Your task to perform on an android device: turn off picture-in-picture Image 0: 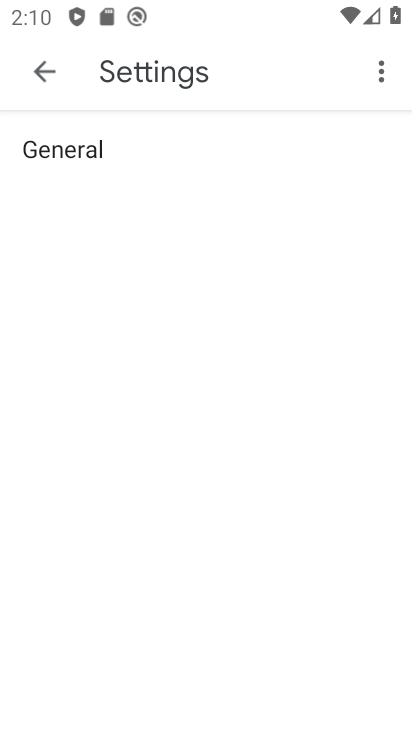
Step 0: click (35, 60)
Your task to perform on an android device: turn off picture-in-picture Image 1: 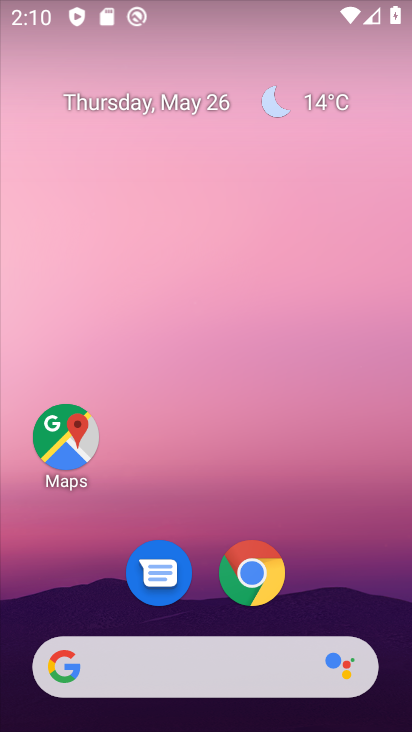
Step 1: drag from (339, 587) to (213, 17)
Your task to perform on an android device: turn off picture-in-picture Image 2: 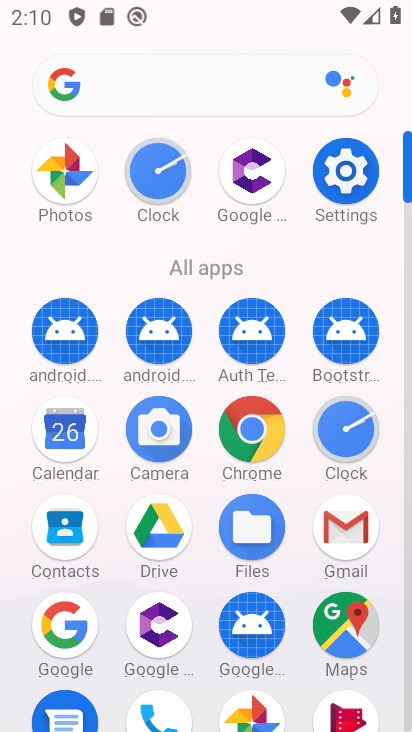
Step 2: drag from (8, 593) to (32, 225)
Your task to perform on an android device: turn off picture-in-picture Image 3: 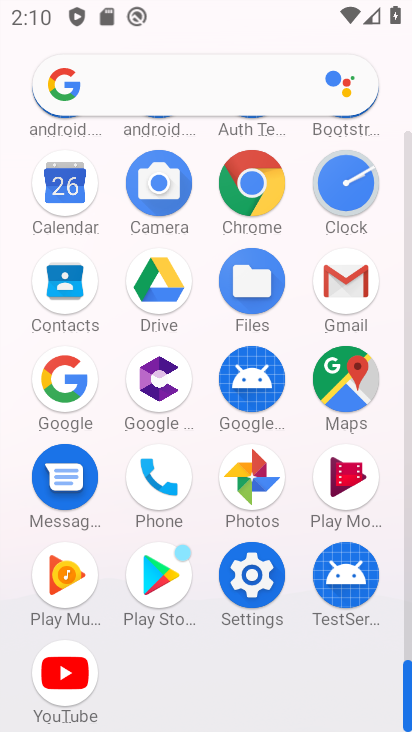
Step 3: click (252, 573)
Your task to perform on an android device: turn off picture-in-picture Image 4: 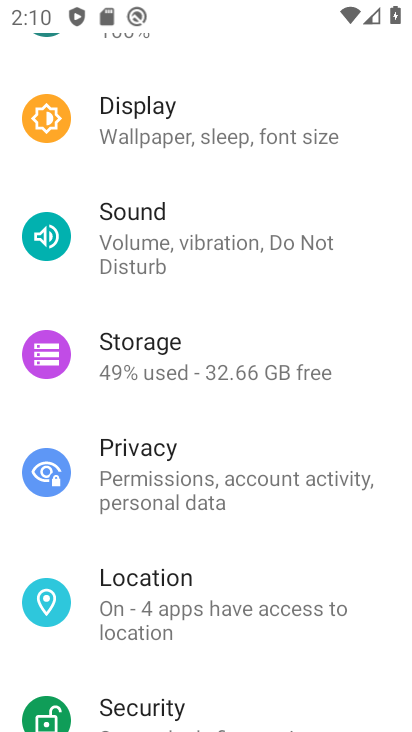
Step 4: drag from (268, 624) to (260, 109)
Your task to perform on an android device: turn off picture-in-picture Image 5: 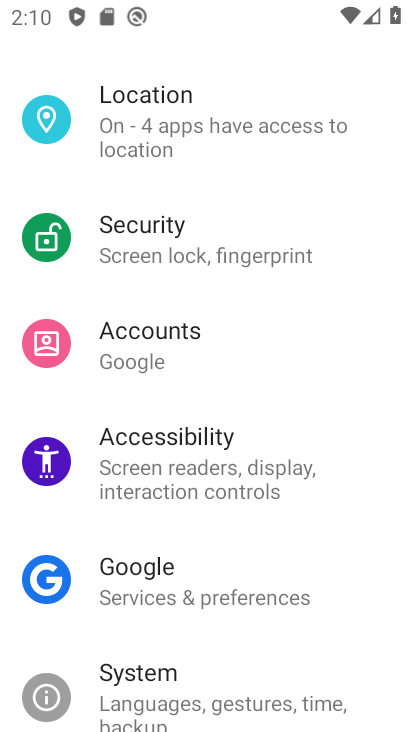
Step 5: drag from (258, 575) to (258, 111)
Your task to perform on an android device: turn off picture-in-picture Image 6: 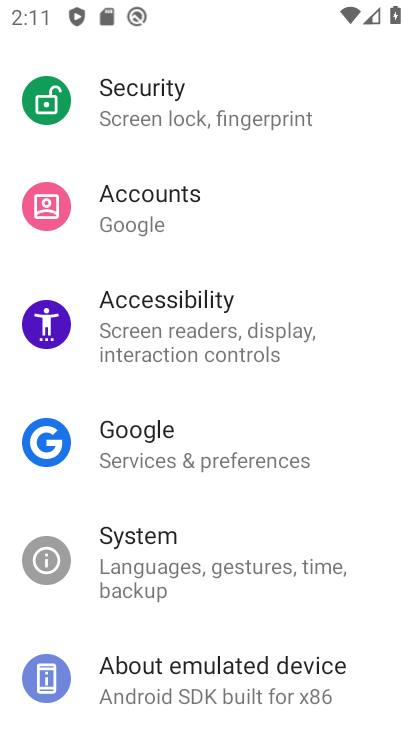
Step 6: drag from (210, 645) to (210, 230)
Your task to perform on an android device: turn off picture-in-picture Image 7: 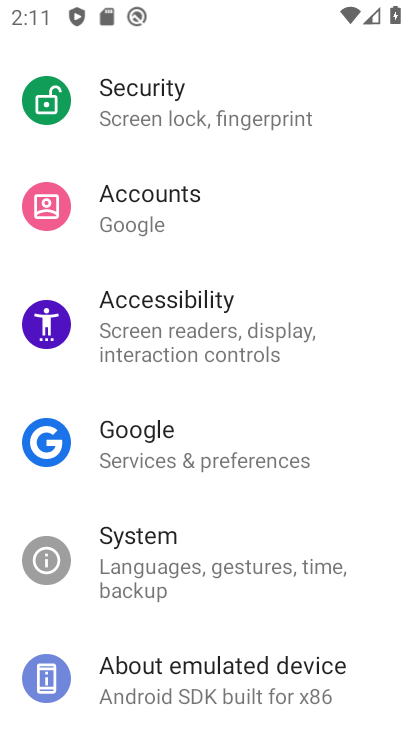
Step 7: click (186, 688)
Your task to perform on an android device: turn off picture-in-picture Image 8: 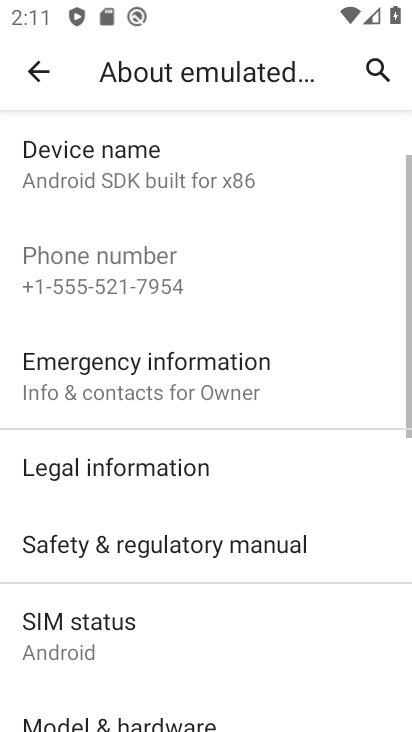
Step 8: drag from (269, 617) to (303, 144)
Your task to perform on an android device: turn off picture-in-picture Image 9: 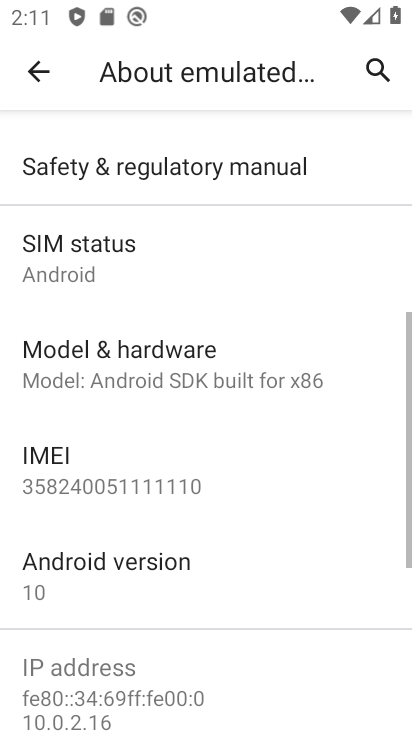
Step 9: drag from (234, 577) to (267, 122)
Your task to perform on an android device: turn off picture-in-picture Image 10: 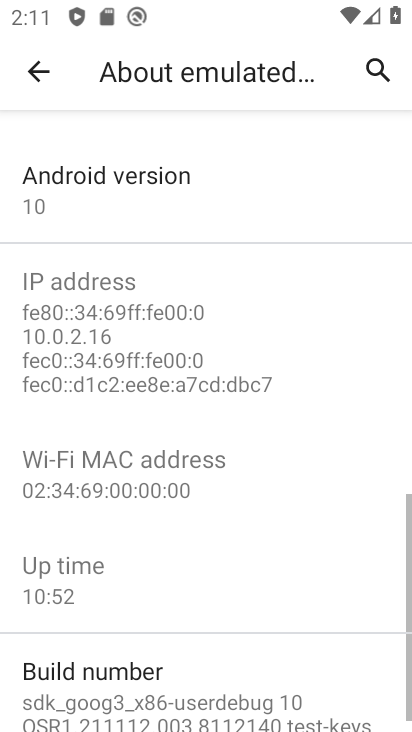
Step 10: click (50, 81)
Your task to perform on an android device: turn off picture-in-picture Image 11: 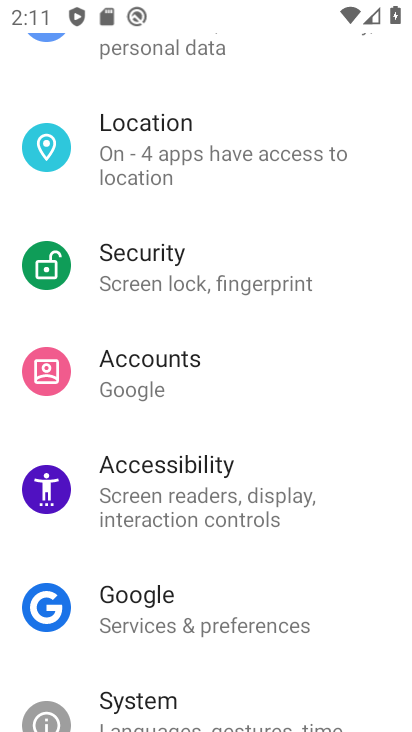
Step 11: drag from (266, 151) to (255, 597)
Your task to perform on an android device: turn off picture-in-picture Image 12: 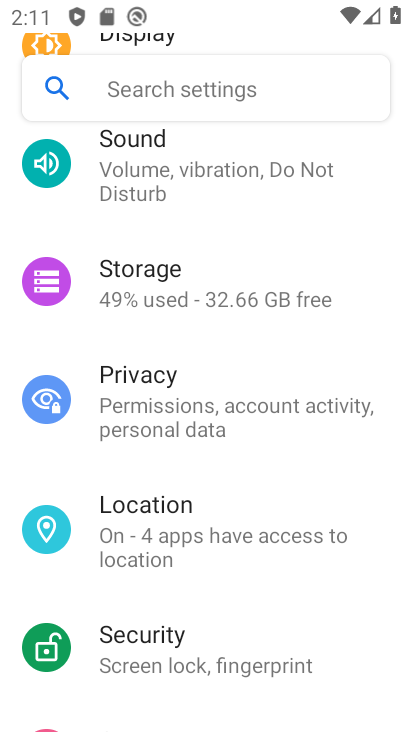
Step 12: drag from (263, 234) to (237, 685)
Your task to perform on an android device: turn off picture-in-picture Image 13: 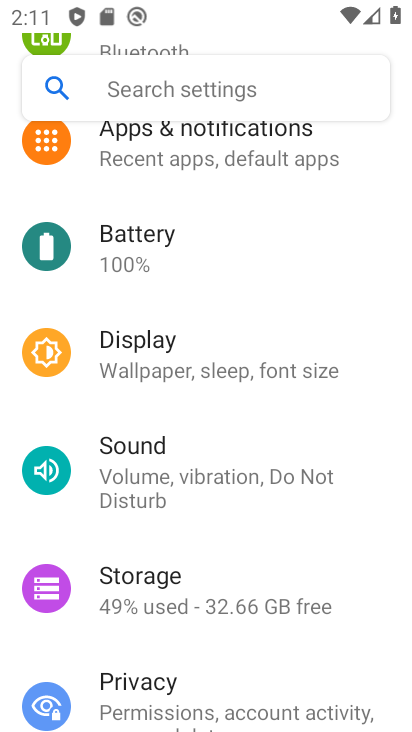
Step 13: drag from (233, 195) to (229, 430)
Your task to perform on an android device: turn off picture-in-picture Image 14: 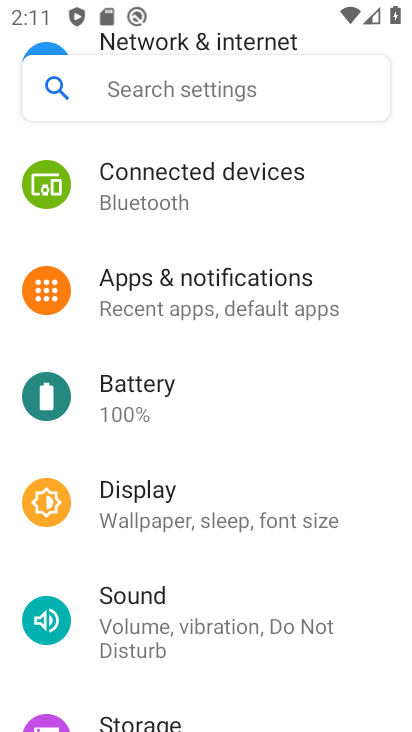
Step 14: click (213, 294)
Your task to perform on an android device: turn off picture-in-picture Image 15: 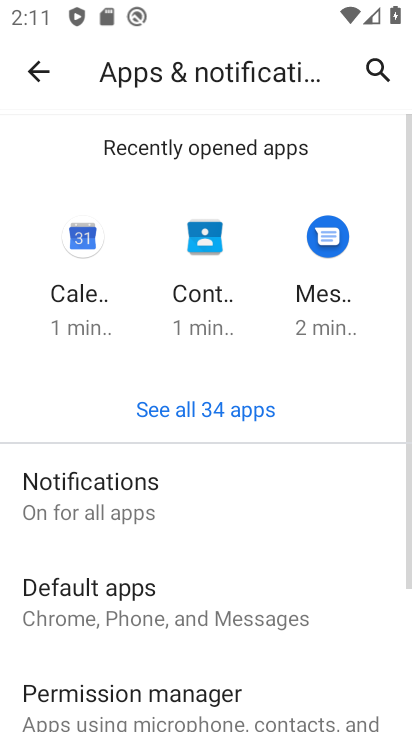
Step 15: drag from (296, 640) to (308, 141)
Your task to perform on an android device: turn off picture-in-picture Image 16: 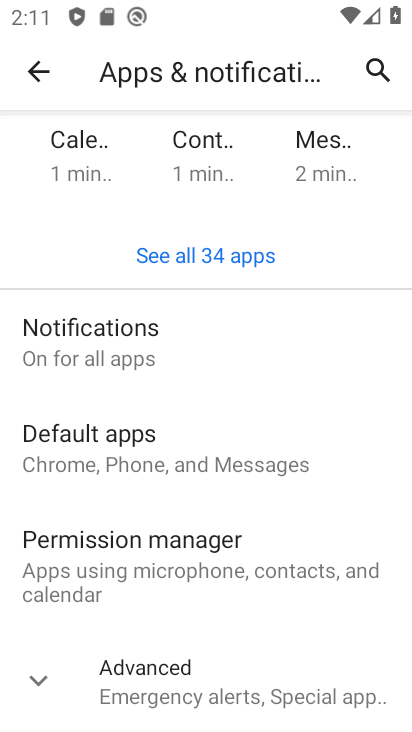
Step 16: click (157, 665)
Your task to perform on an android device: turn off picture-in-picture Image 17: 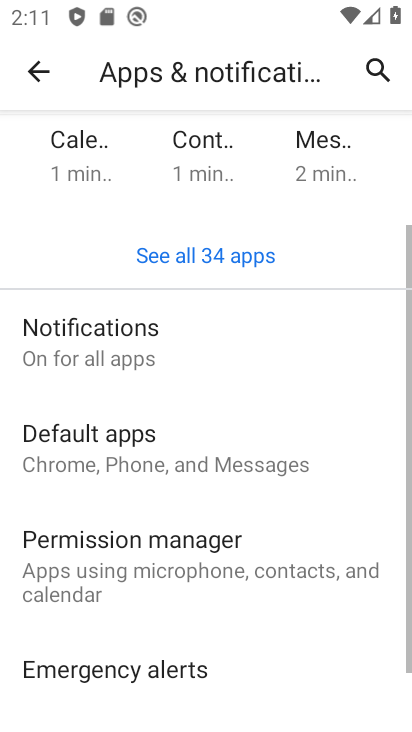
Step 17: drag from (305, 640) to (288, 175)
Your task to perform on an android device: turn off picture-in-picture Image 18: 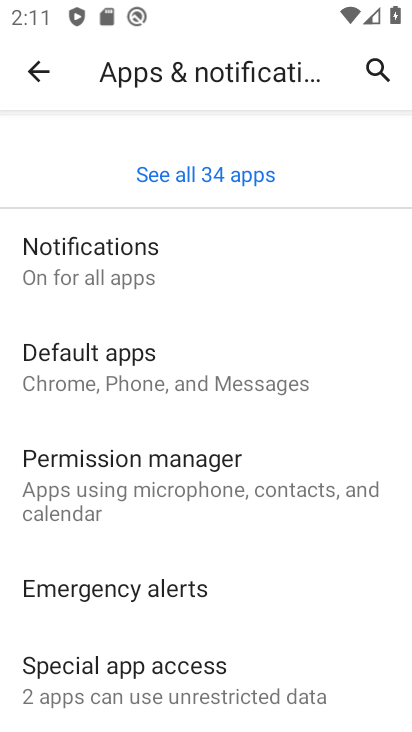
Step 18: click (156, 683)
Your task to perform on an android device: turn off picture-in-picture Image 19: 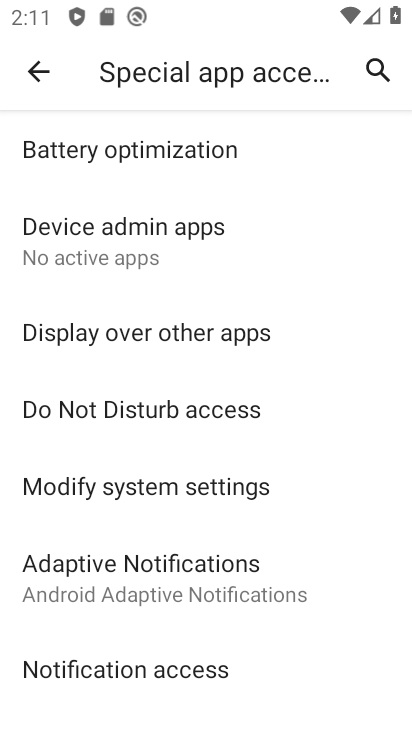
Step 19: drag from (241, 593) to (262, 197)
Your task to perform on an android device: turn off picture-in-picture Image 20: 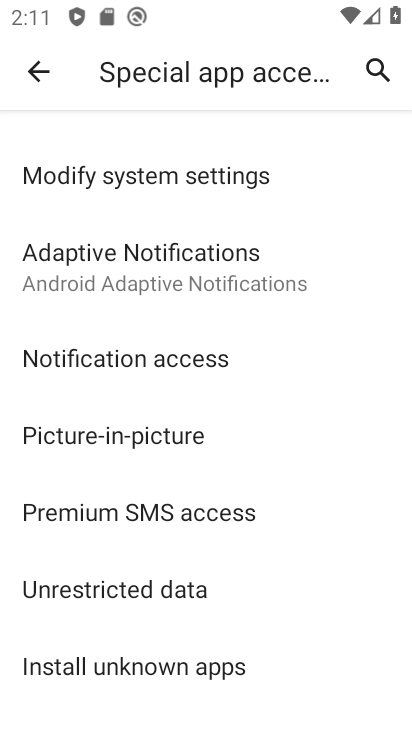
Step 20: click (172, 429)
Your task to perform on an android device: turn off picture-in-picture Image 21: 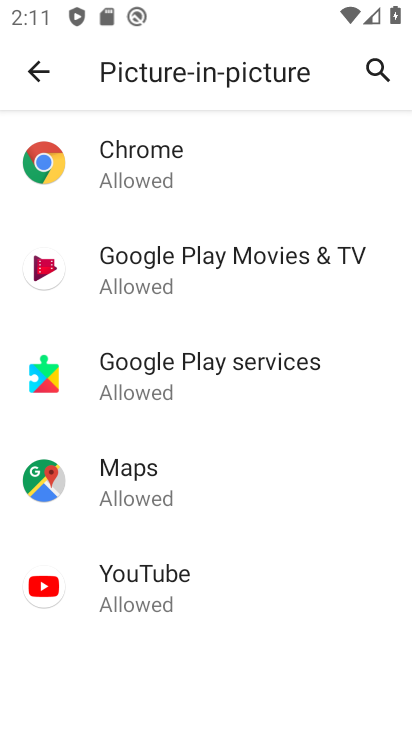
Step 21: click (214, 172)
Your task to perform on an android device: turn off picture-in-picture Image 22: 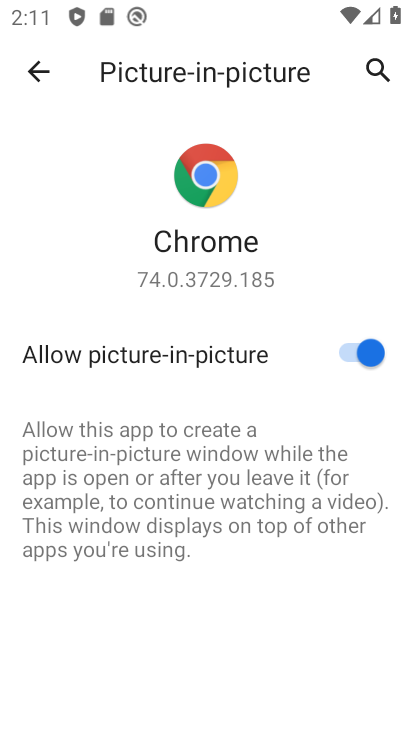
Step 22: click (354, 360)
Your task to perform on an android device: turn off picture-in-picture Image 23: 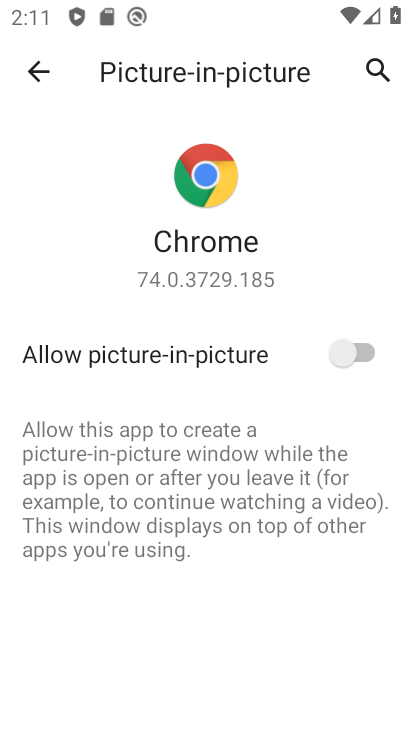
Step 23: click (42, 60)
Your task to perform on an android device: turn off picture-in-picture Image 24: 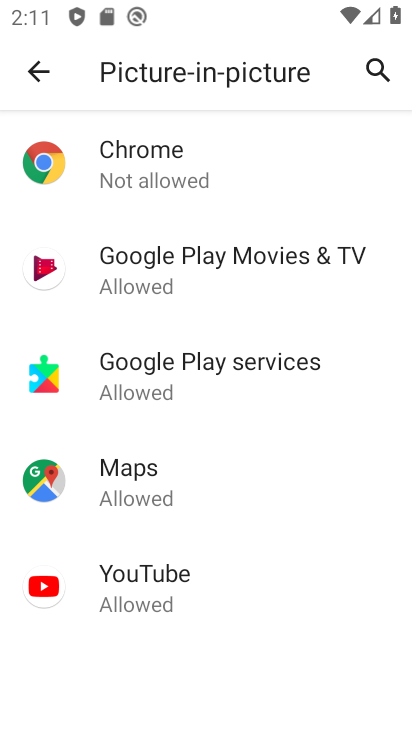
Step 24: click (127, 294)
Your task to perform on an android device: turn off picture-in-picture Image 25: 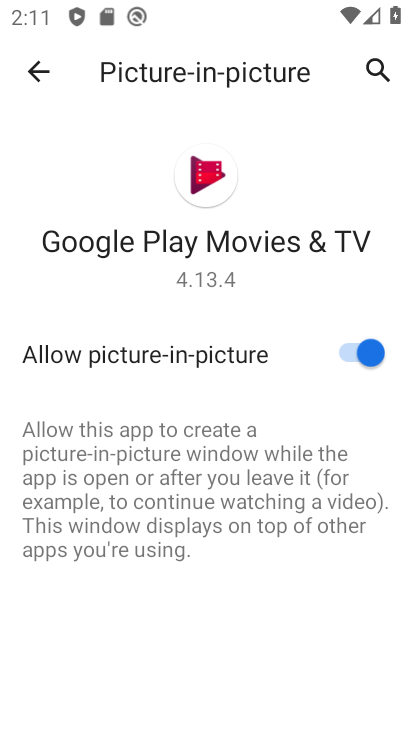
Step 25: click (343, 342)
Your task to perform on an android device: turn off picture-in-picture Image 26: 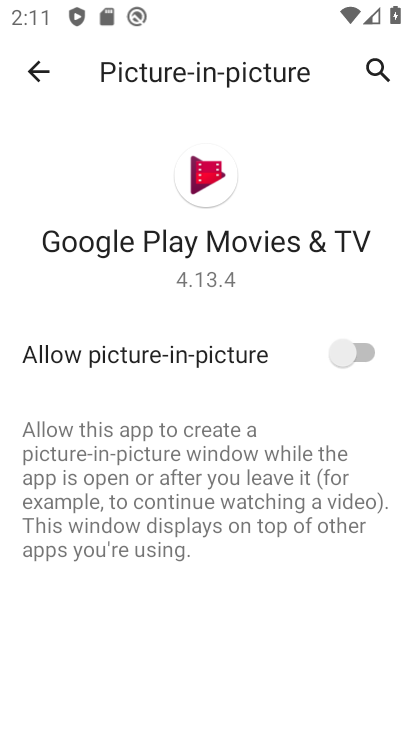
Step 26: click (39, 64)
Your task to perform on an android device: turn off picture-in-picture Image 27: 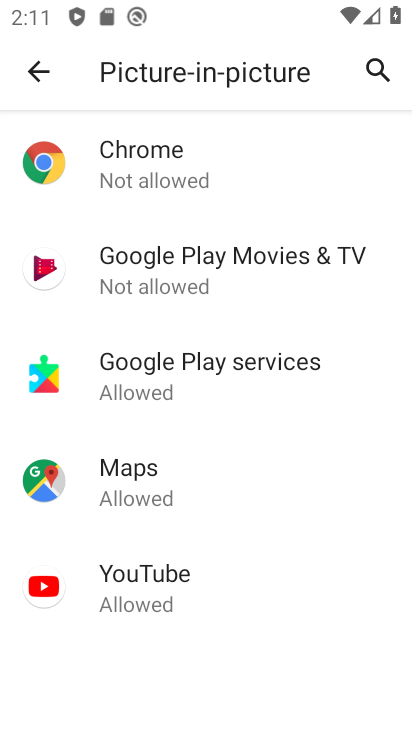
Step 27: click (170, 387)
Your task to perform on an android device: turn off picture-in-picture Image 28: 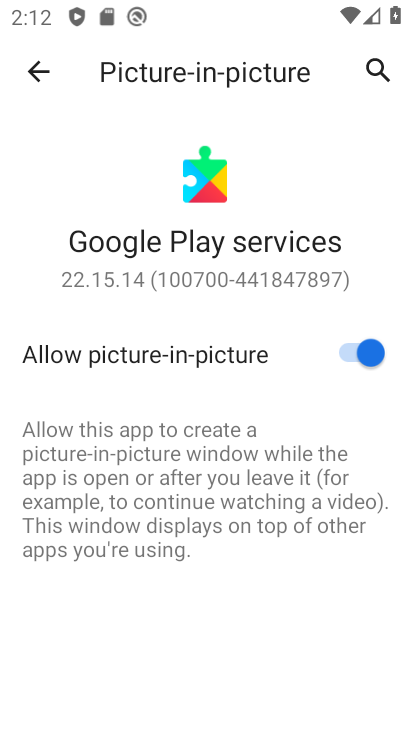
Step 28: click (361, 352)
Your task to perform on an android device: turn off picture-in-picture Image 29: 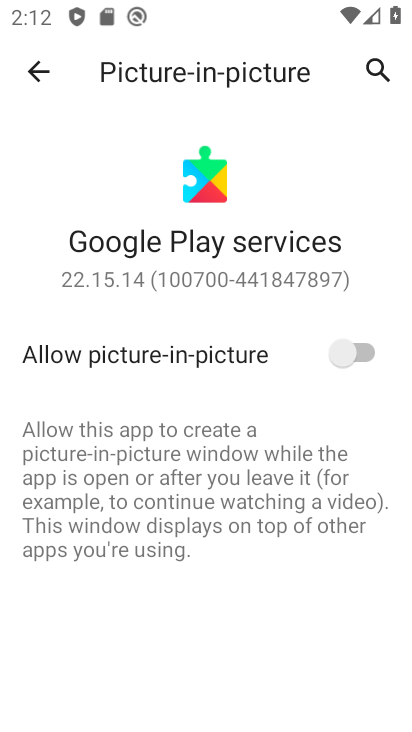
Step 29: click (36, 74)
Your task to perform on an android device: turn off picture-in-picture Image 30: 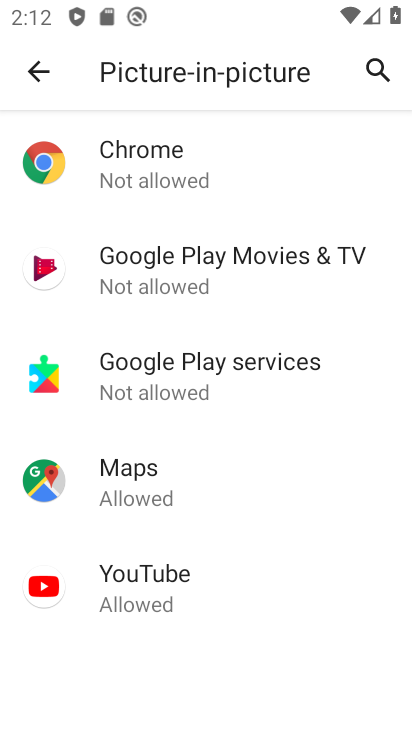
Step 30: click (142, 497)
Your task to perform on an android device: turn off picture-in-picture Image 31: 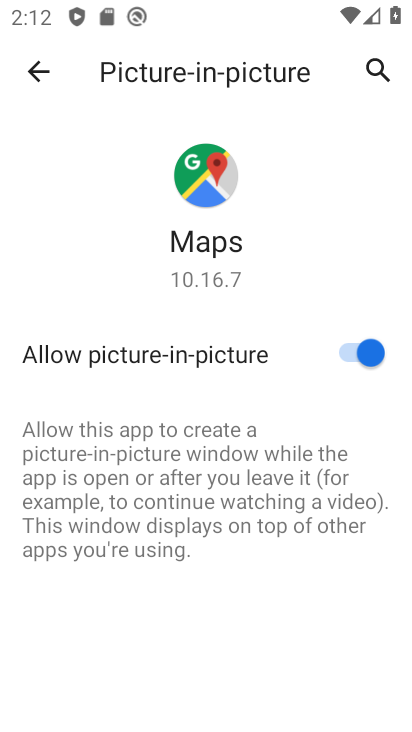
Step 31: click (354, 349)
Your task to perform on an android device: turn off picture-in-picture Image 32: 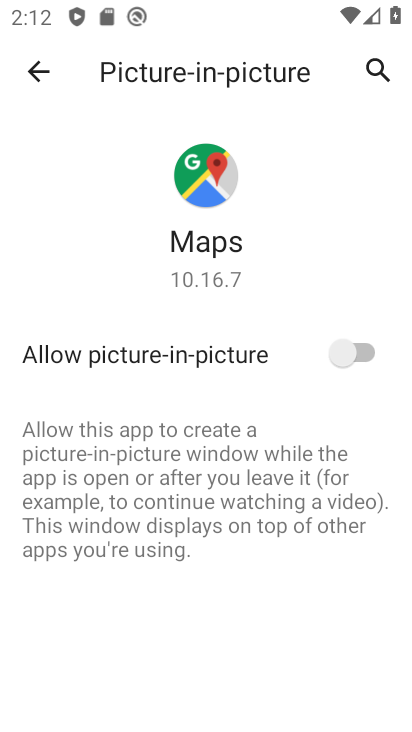
Step 32: click (38, 70)
Your task to perform on an android device: turn off picture-in-picture Image 33: 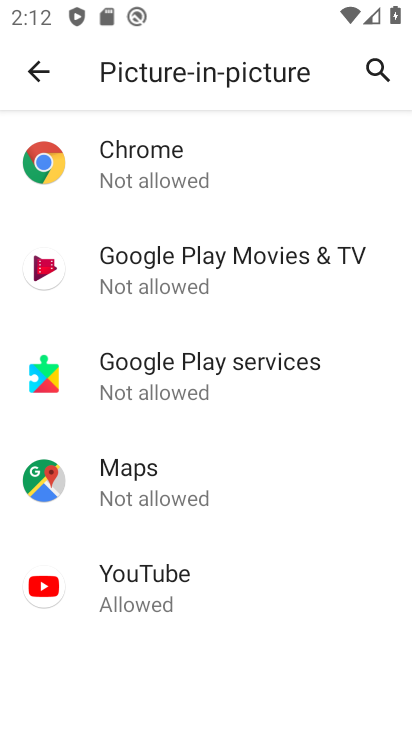
Step 33: click (156, 594)
Your task to perform on an android device: turn off picture-in-picture Image 34: 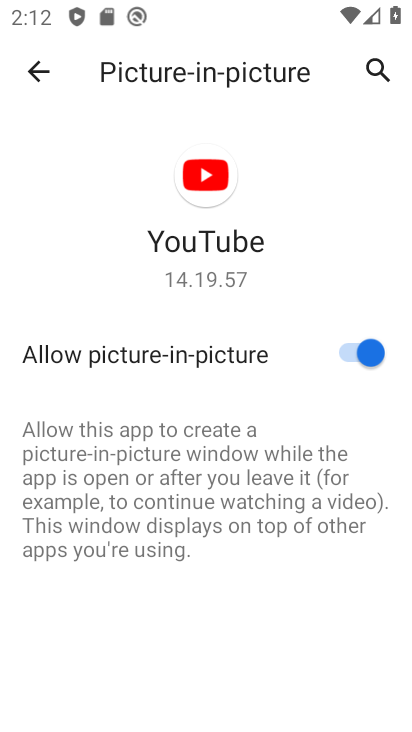
Step 34: click (326, 348)
Your task to perform on an android device: turn off picture-in-picture Image 35: 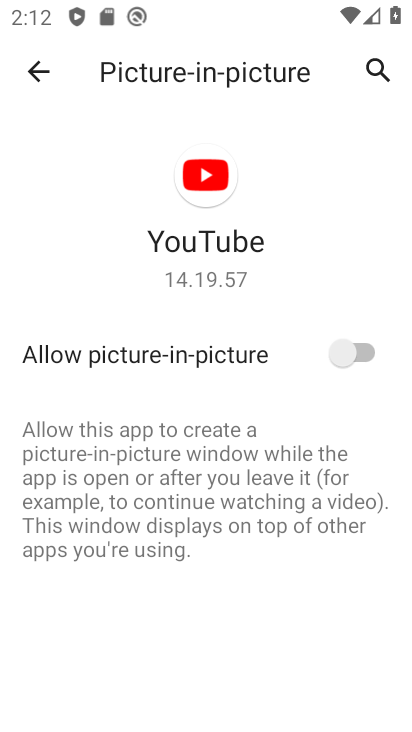
Step 35: click (57, 82)
Your task to perform on an android device: turn off picture-in-picture Image 36: 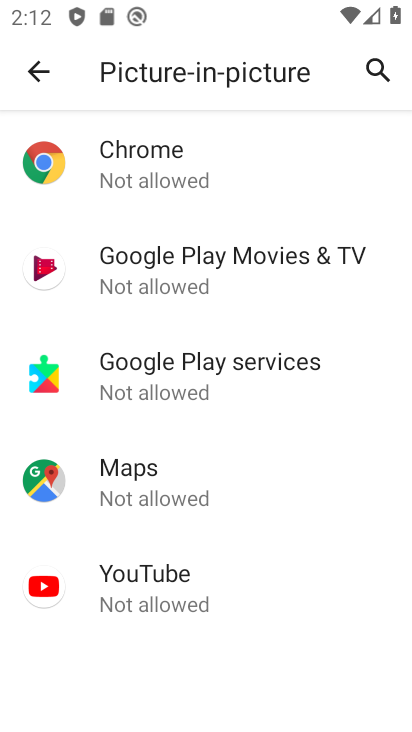
Step 36: task complete